Your task to perform on an android device: empty trash in google photos Image 0: 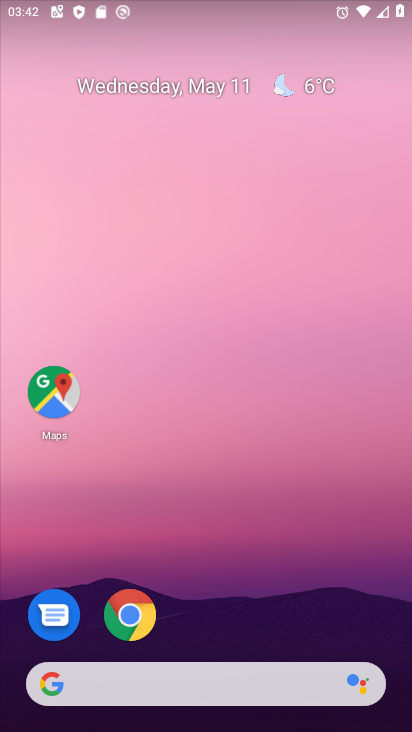
Step 0: drag from (298, 585) to (284, 54)
Your task to perform on an android device: empty trash in google photos Image 1: 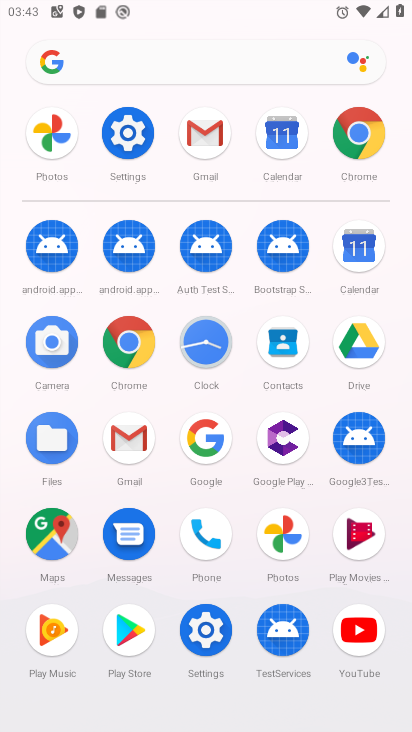
Step 1: click (268, 532)
Your task to perform on an android device: empty trash in google photos Image 2: 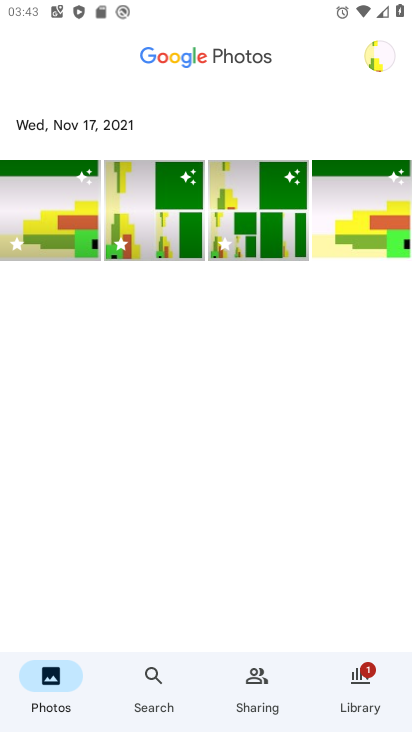
Step 2: click (379, 60)
Your task to perform on an android device: empty trash in google photos Image 3: 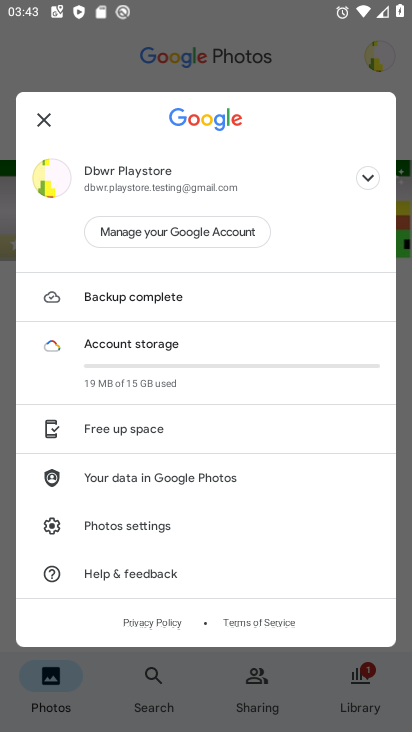
Step 3: click (166, 433)
Your task to perform on an android device: empty trash in google photos Image 4: 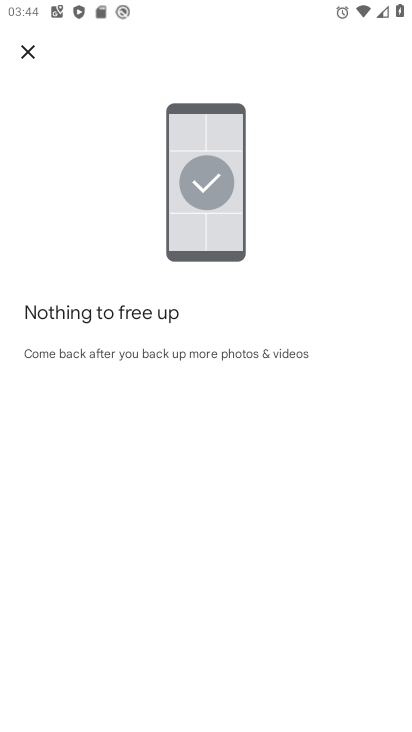
Step 4: task complete